Your task to perform on an android device: add a contact Image 0: 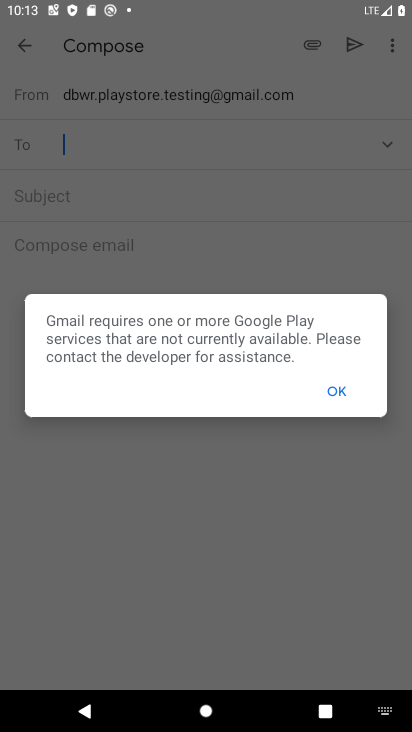
Step 0: press home button
Your task to perform on an android device: add a contact Image 1: 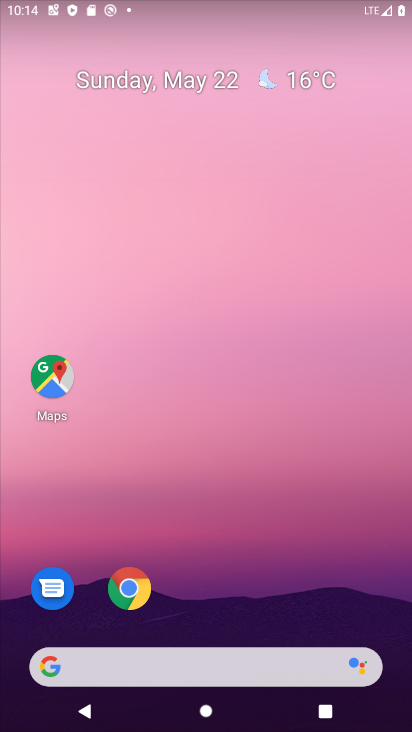
Step 1: drag from (219, 625) to (197, 183)
Your task to perform on an android device: add a contact Image 2: 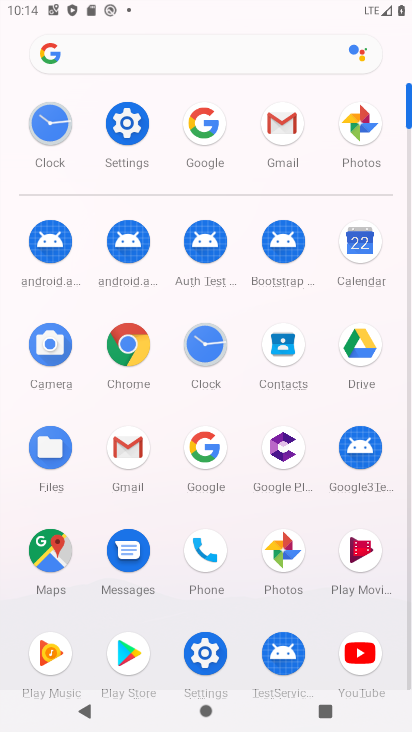
Step 2: click (278, 349)
Your task to perform on an android device: add a contact Image 3: 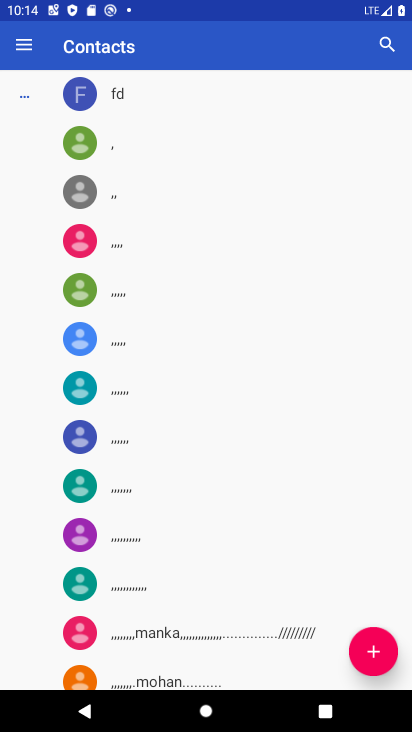
Step 3: click (384, 666)
Your task to perform on an android device: add a contact Image 4: 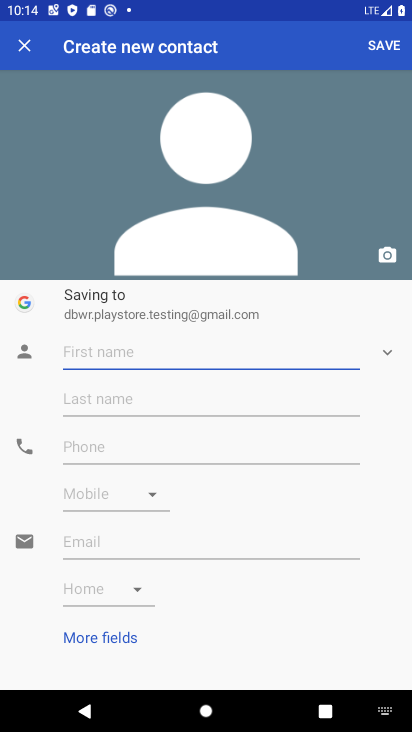
Step 4: type "fugu"
Your task to perform on an android device: add a contact Image 5: 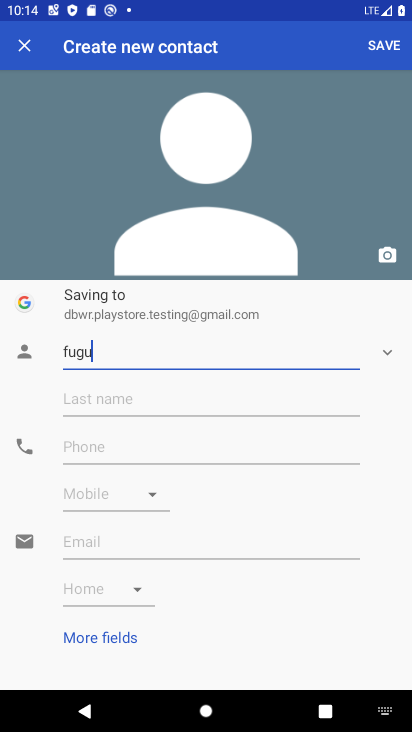
Step 5: click (111, 443)
Your task to perform on an android device: add a contact Image 6: 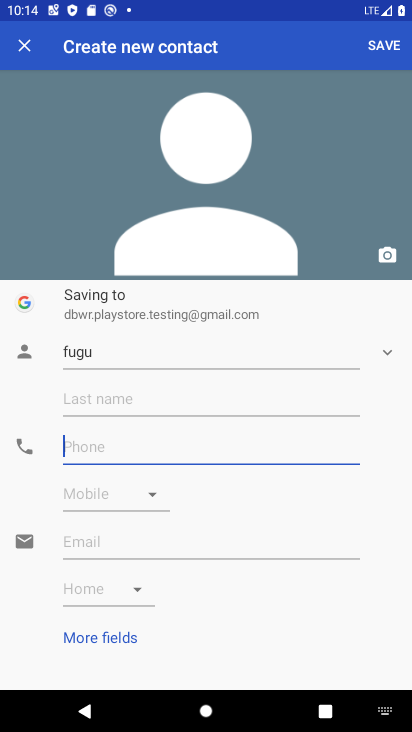
Step 6: type "98759875765"
Your task to perform on an android device: add a contact Image 7: 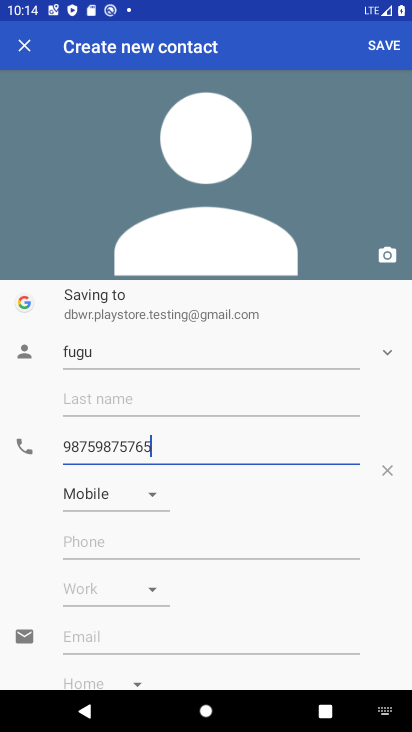
Step 7: click (392, 42)
Your task to perform on an android device: add a contact Image 8: 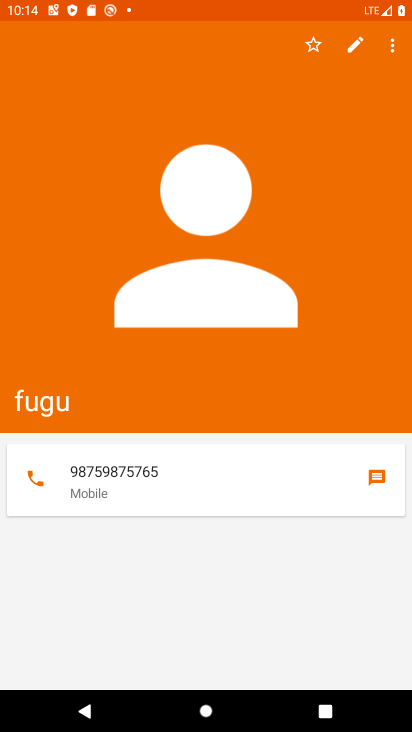
Step 8: task complete